Your task to perform on an android device: Open Reddit.com Image 0: 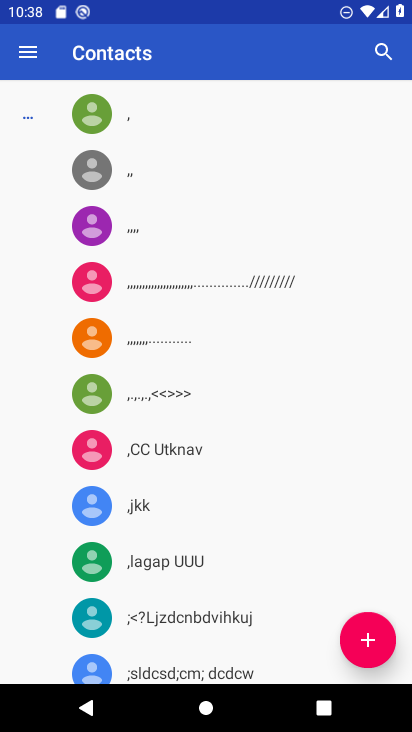
Step 0: press home button
Your task to perform on an android device: Open Reddit.com Image 1: 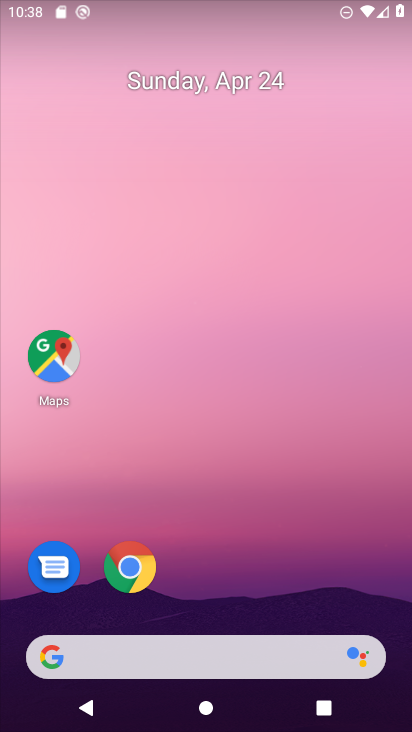
Step 1: click (126, 569)
Your task to perform on an android device: Open Reddit.com Image 2: 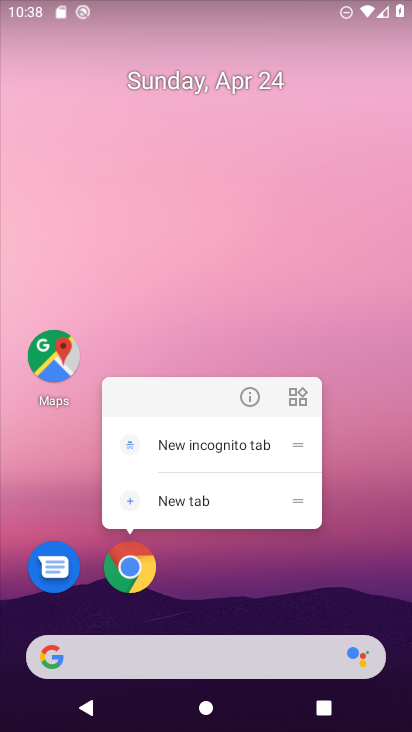
Step 2: click (251, 397)
Your task to perform on an android device: Open Reddit.com Image 3: 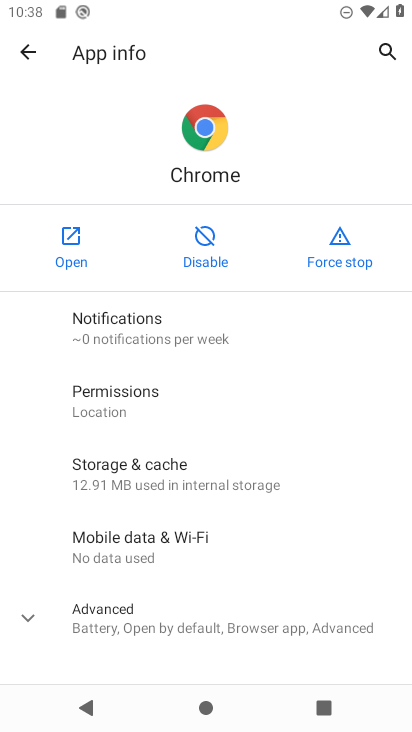
Step 3: click (62, 257)
Your task to perform on an android device: Open Reddit.com Image 4: 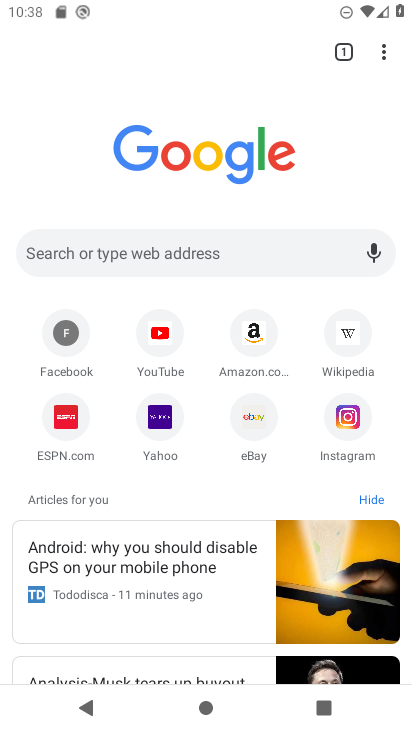
Step 4: click (101, 251)
Your task to perform on an android device: Open Reddit.com Image 5: 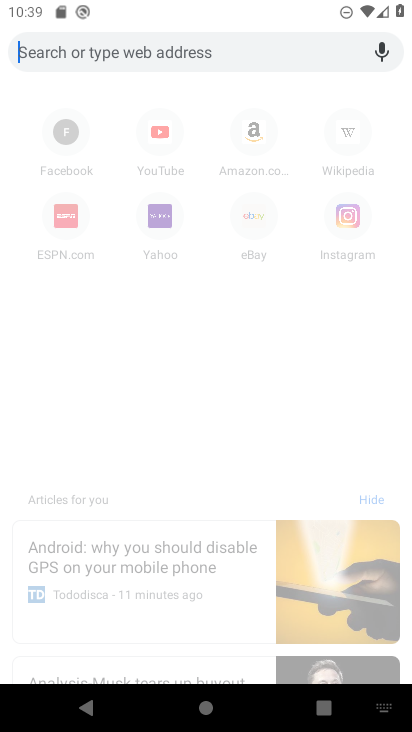
Step 5: type "reddit.com"
Your task to perform on an android device: Open Reddit.com Image 6: 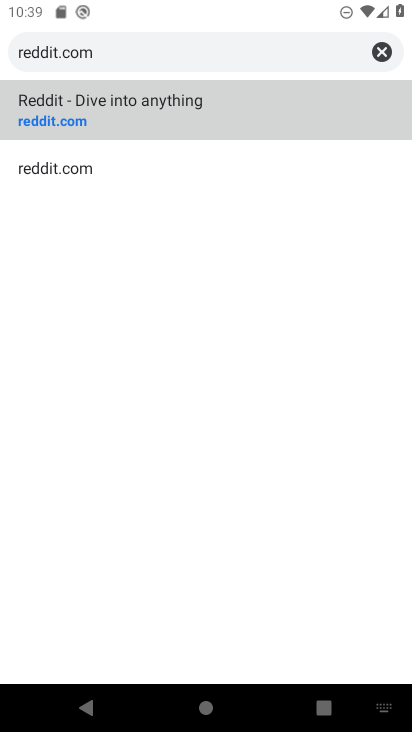
Step 6: click (100, 109)
Your task to perform on an android device: Open Reddit.com Image 7: 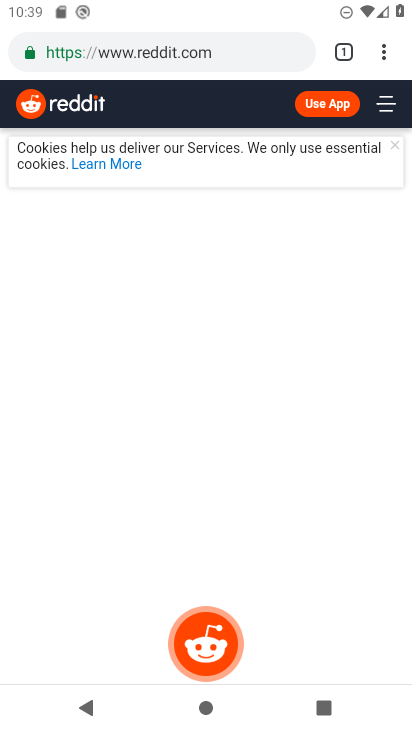
Step 7: task complete